Your task to perform on an android device: Open Reddit.com Image 0: 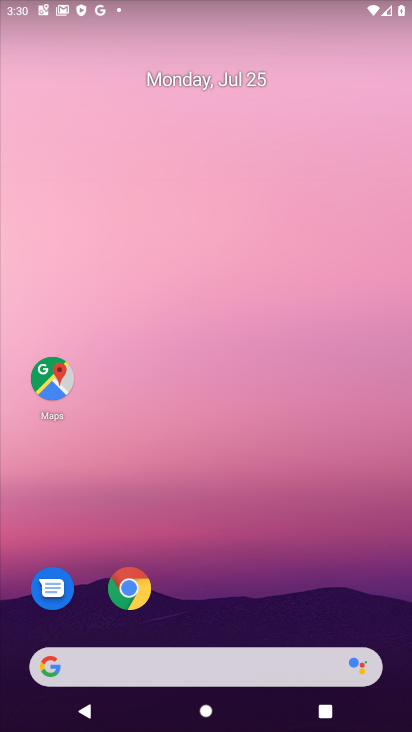
Step 0: click (127, 585)
Your task to perform on an android device: Open Reddit.com Image 1: 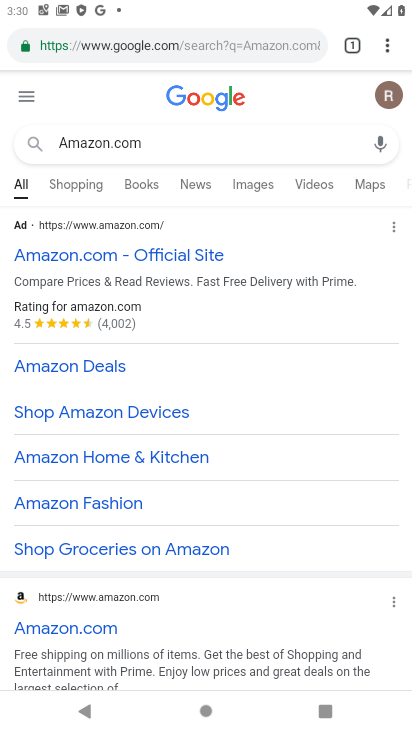
Step 1: click (276, 49)
Your task to perform on an android device: Open Reddit.com Image 2: 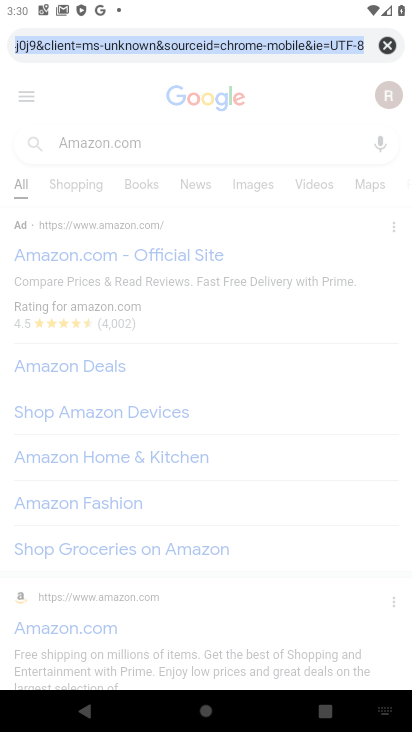
Step 2: click (385, 49)
Your task to perform on an android device: Open Reddit.com Image 3: 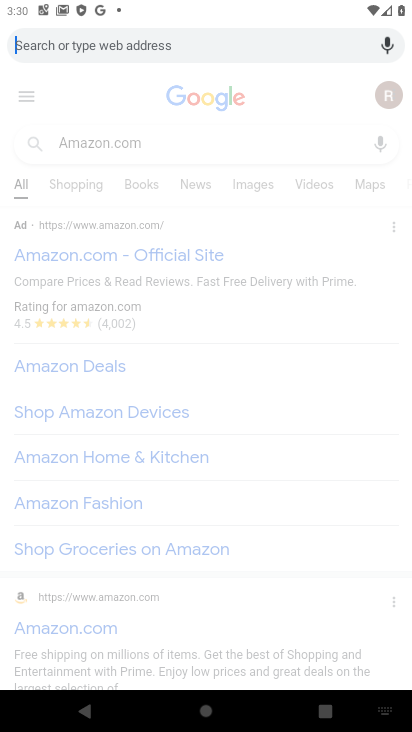
Step 3: type "Reddit.com"
Your task to perform on an android device: Open Reddit.com Image 4: 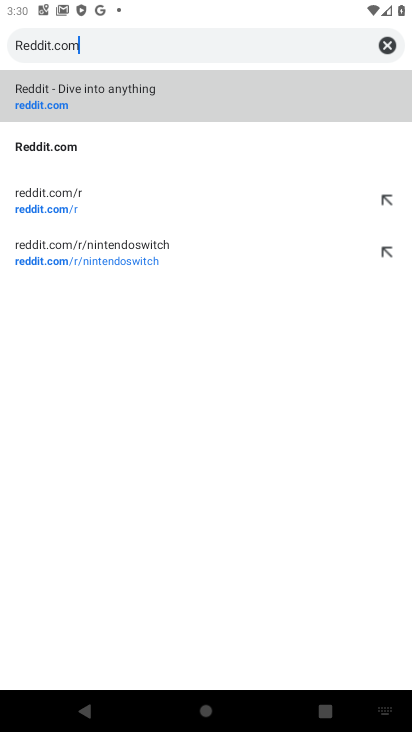
Step 4: click (39, 139)
Your task to perform on an android device: Open Reddit.com Image 5: 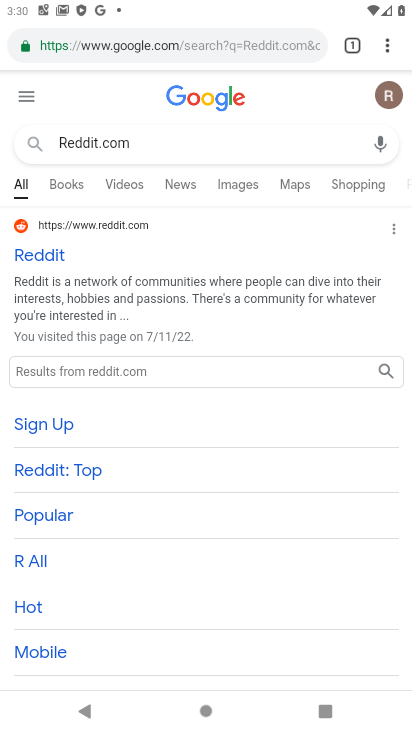
Step 5: task complete